Your task to perform on an android device: change timer sound Image 0: 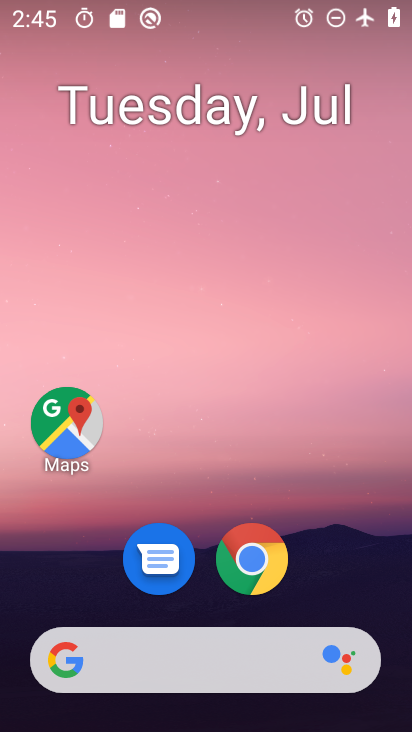
Step 0: drag from (377, 568) to (400, 158)
Your task to perform on an android device: change timer sound Image 1: 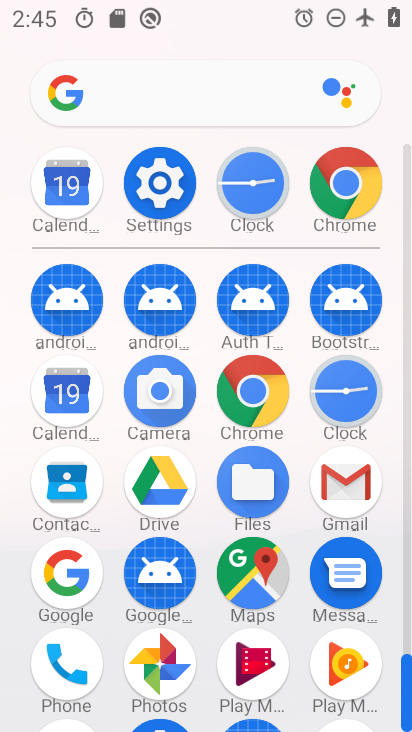
Step 1: click (362, 394)
Your task to perform on an android device: change timer sound Image 2: 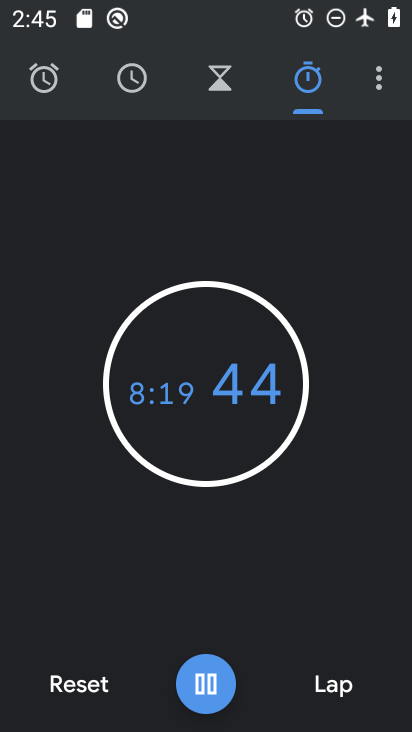
Step 2: click (380, 88)
Your task to perform on an android device: change timer sound Image 3: 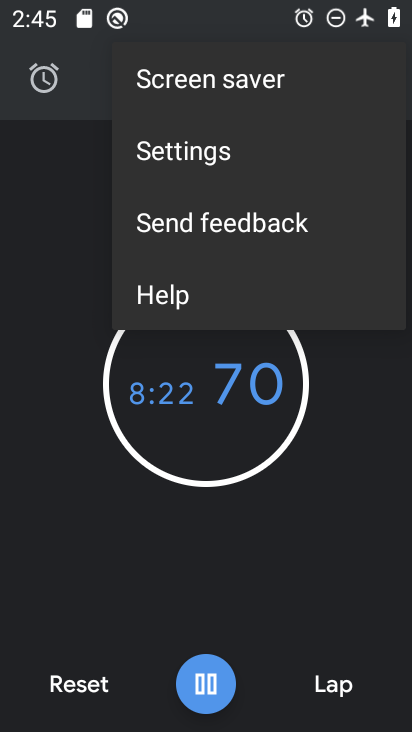
Step 3: click (240, 152)
Your task to perform on an android device: change timer sound Image 4: 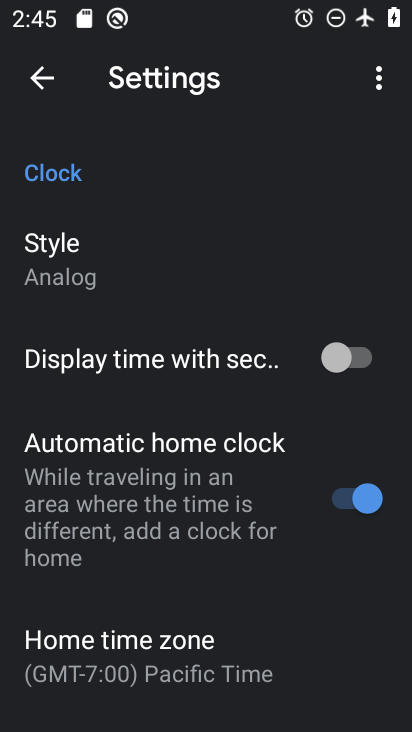
Step 4: drag from (311, 560) to (318, 483)
Your task to perform on an android device: change timer sound Image 5: 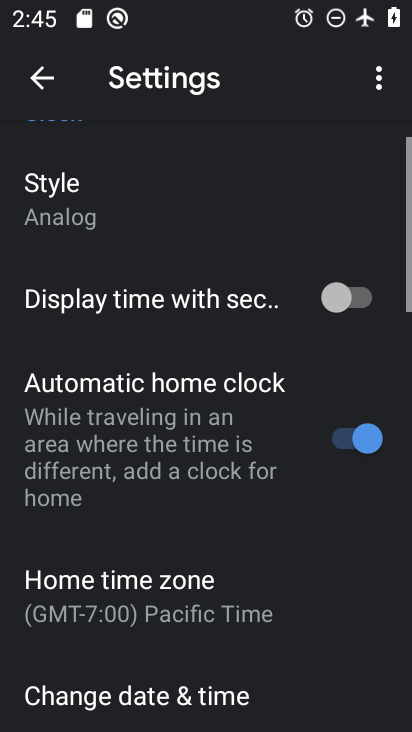
Step 5: drag from (333, 595) to (335, 471)
Your task to perform on an android device: change timer sound Image 6: 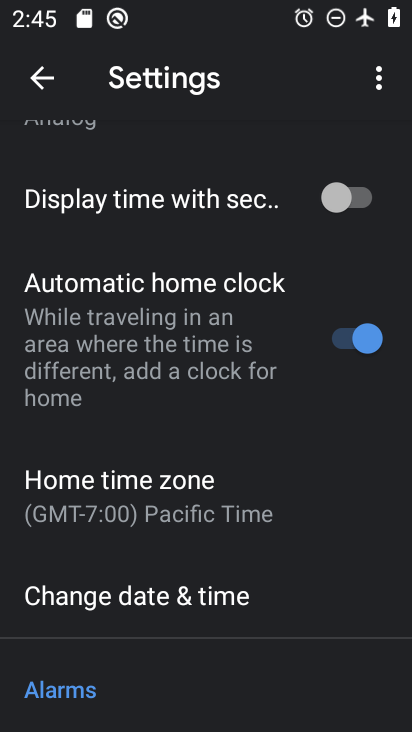
Step 6: drag from (328, 552) to (329, 388)
Your task to perform on an android device: change timer sound Image 7: 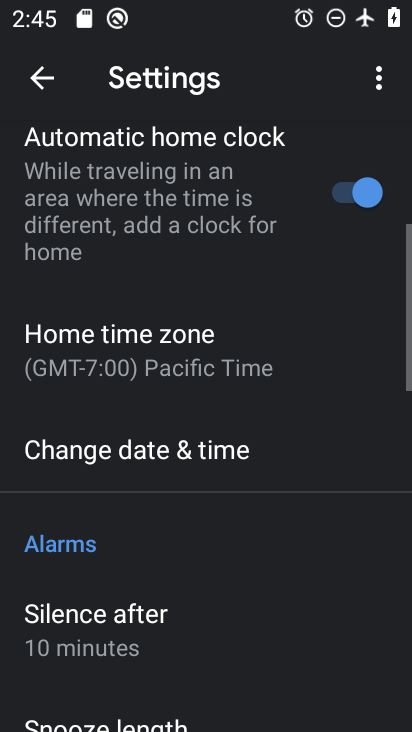
Step 7: drag from (313, 506) to (310, 410)
Your task to perform on an android device: change timer sound Image 8: 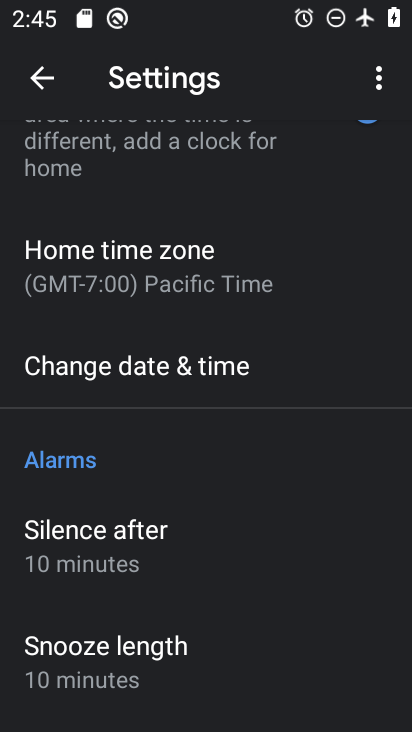
Step 8: drag from (292, 546) to (298, 434)
Your task to perform on an android device: change timer sound Image 9: 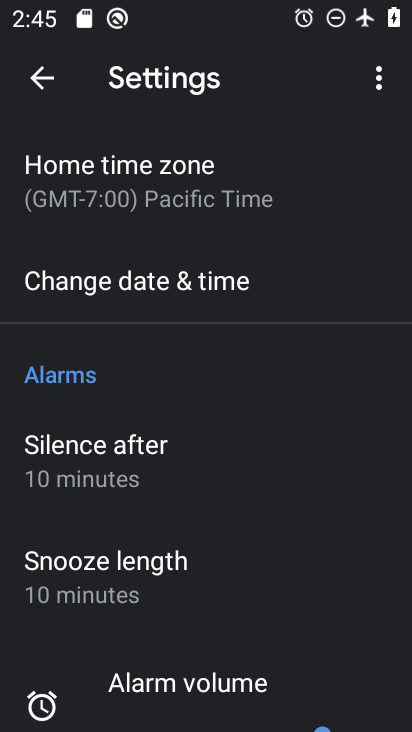
Step 9: drag from (310, 551) to (310, 438)
Your task to perform on an android device: change timer sound Image 10: 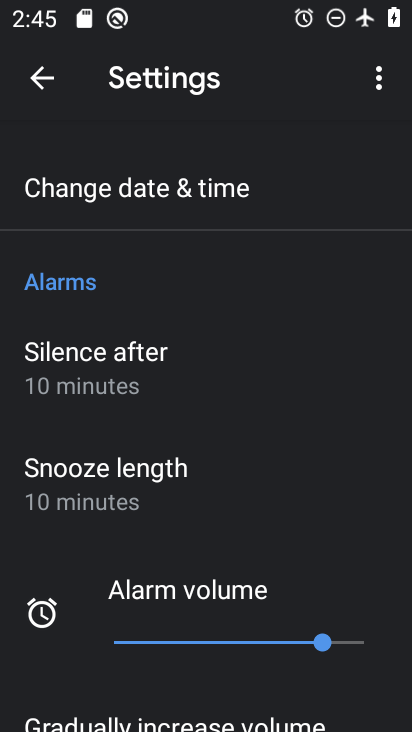
Step 10: drag from (307, 504) to (315, 420)
Your task to perform on an android device: change timer sound Image 11: 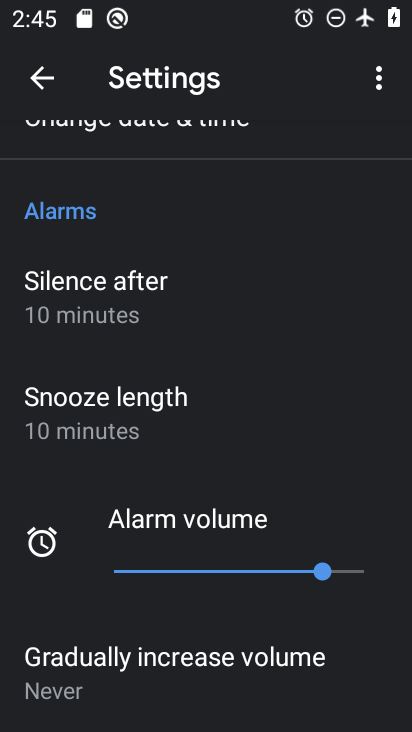
Step 11: drag from (320, 515) to (325, 404)
Your task to perform on an android device: change timer sound Image 12: 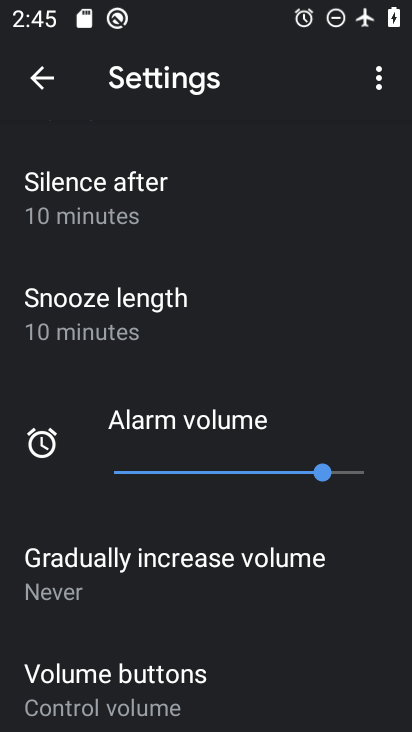
Step 12: drag from (344, 578) to (357, 448)
Your task to perform on an android device: change timer sound Image 13: 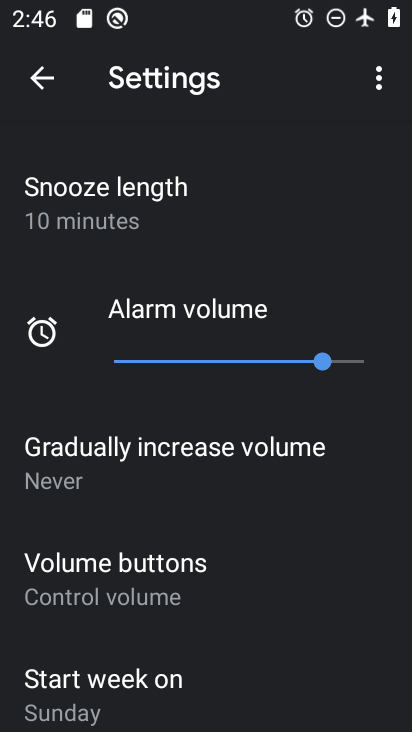
Step 13: drag from (348, 581) to (352, 470)
Your task to perform on an android device: change timer sound Image 14: 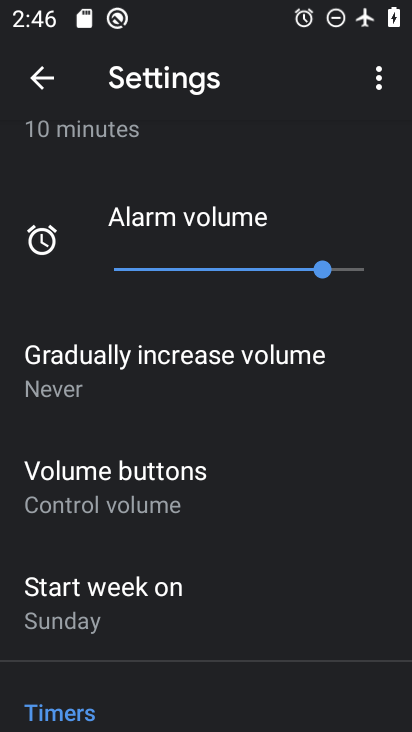
Step 14: drag from (336, 668) to (335, 511)
Your task to perform on an android device: change timer sound Image 15: 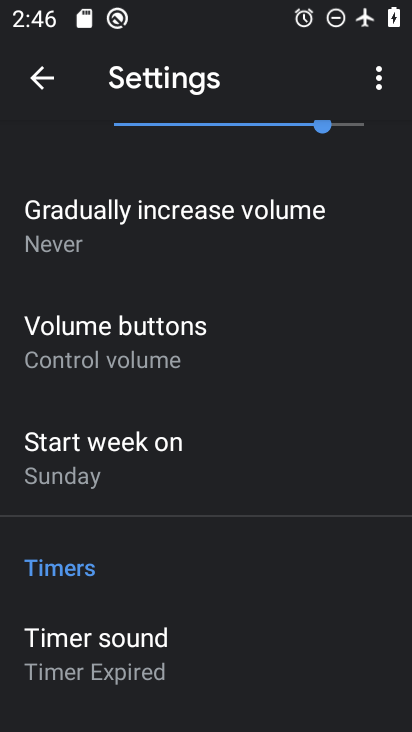
Step 15: click (297, 643)
Your task to perform on an android device: change timer sound Image 16: 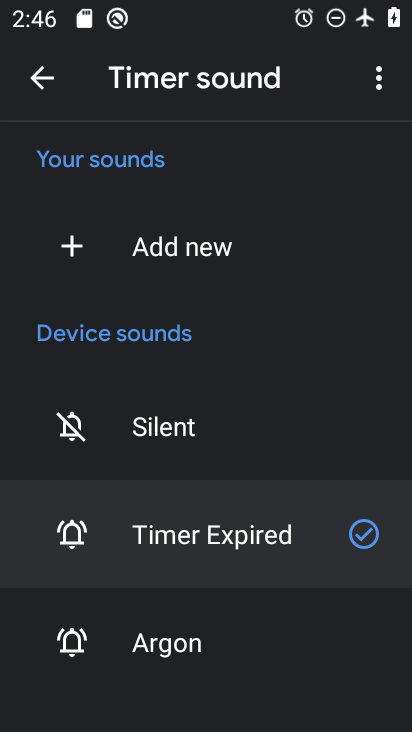
Step 16: click (296, 645)
Your task to perform on an android device: change timer sound Image 17: 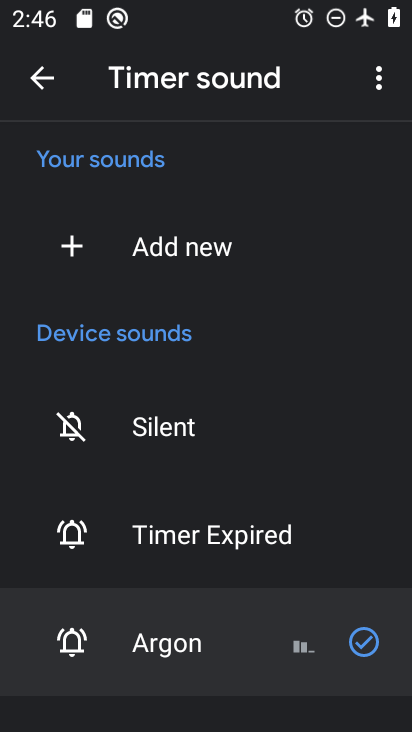
Step 17: task complete